Your task to perform on an android device: Open Maps and search for coffee Image 0: 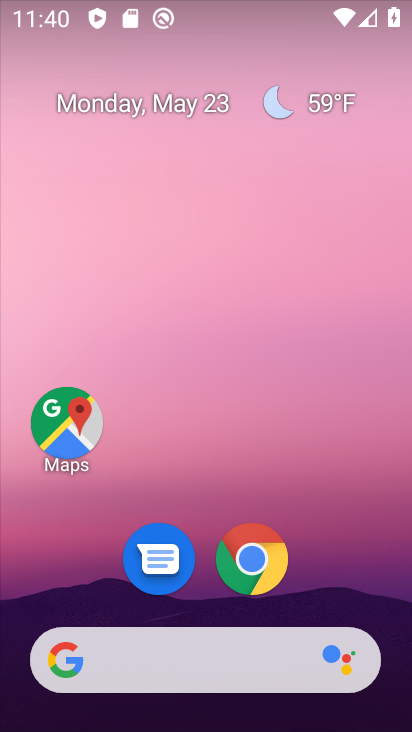
Step 0: drag from (393, 655) to (300, 12)
Your task to perform on an android device: Open Maps and search for coffee Image 1: 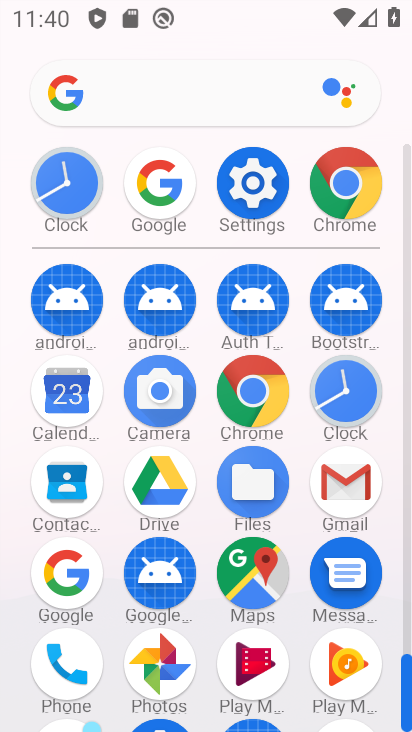
Step 1: click (264, 555)
Your task to perform on an android device: Open Maps and search for coffee Image 2: 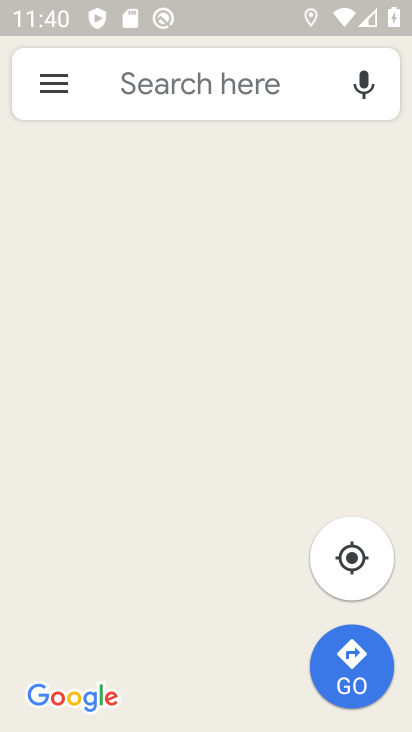
Step 2: click (185, 85)
Your task to perform on an android device: Open Maps and search for coffee Image 3: 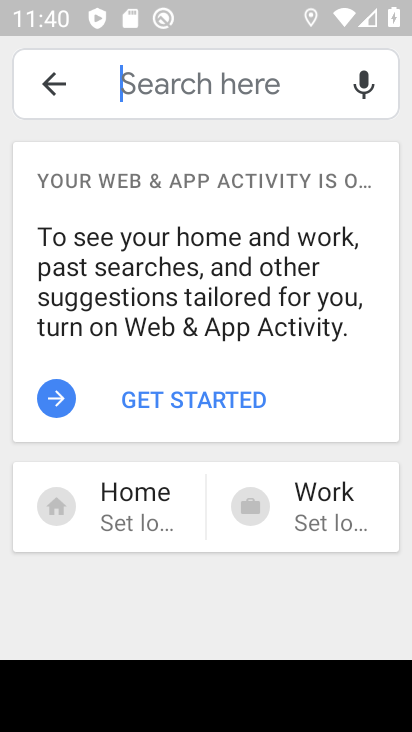
Step 3: click (206, 403)
Your task to perform on an android device: Open Maps and search for coffee Image 4: 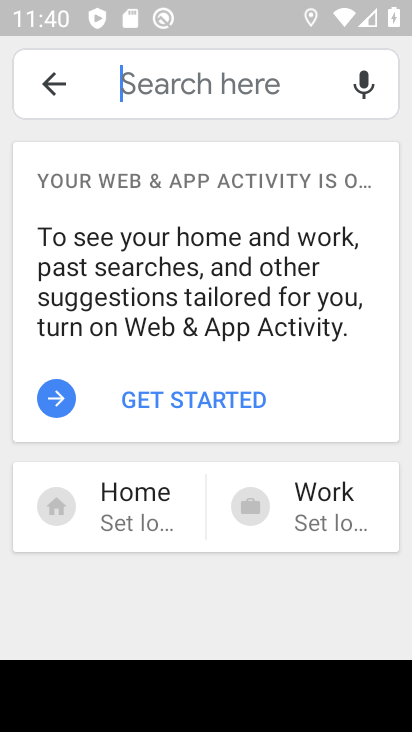
Step 4: click (206, 403)
Your task to perform on an android device: Open Maps and search for coffee Image 5: 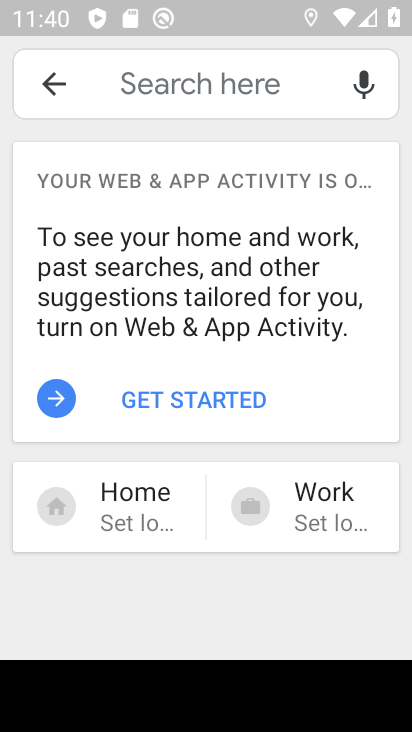
Step 5: click (206, 403)
Your task to perform on an android device: Open Maps and search for coffee Image 6: 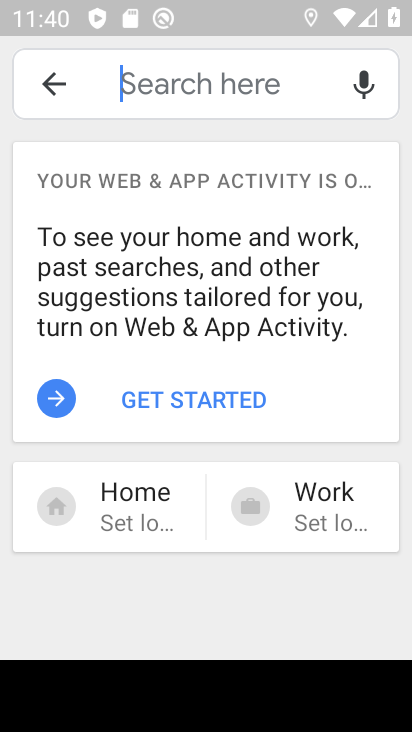
Step 6: click (206, 403)
Your task to perform on an android device: Open Maps and search for coffee Image 7: 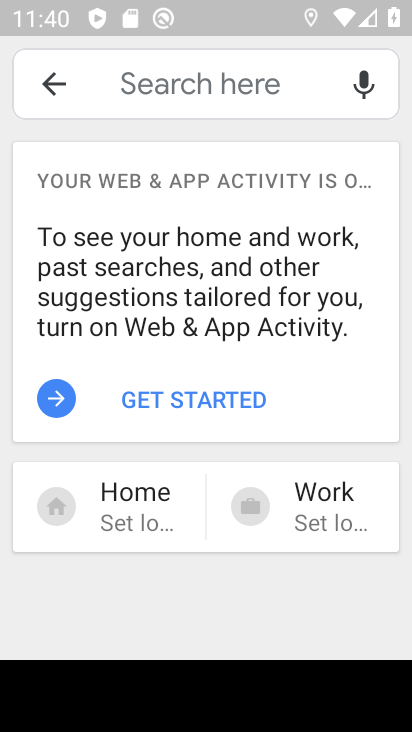
Step 7: task complete